Your task to perform on an android device: Go to ESPN.com Image 0: 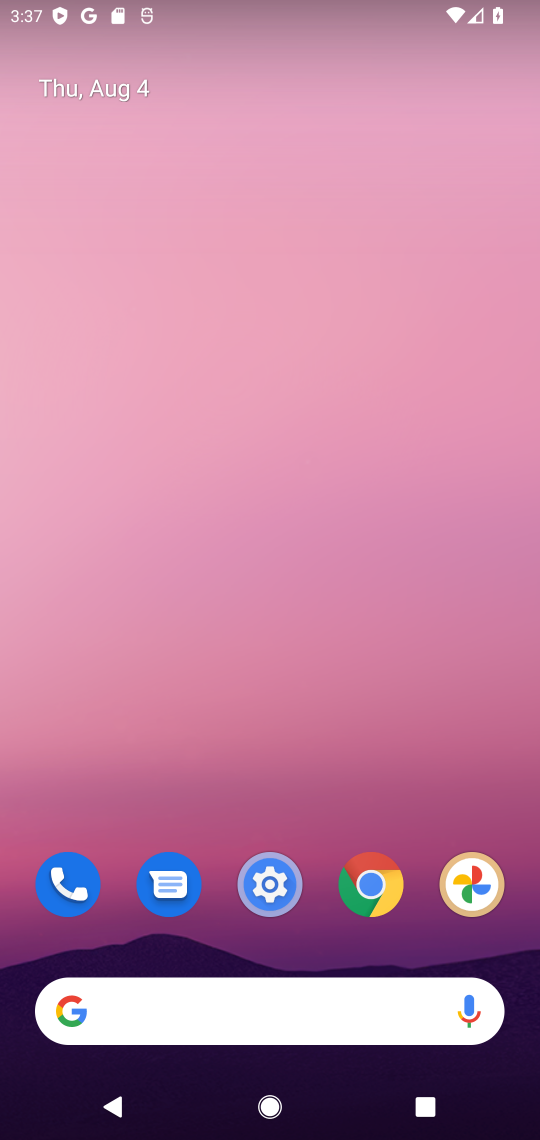
Step 0: drag from (246, 939) to (308, 423)
Your task to perform on an android device: Go to ESPN.com Image 1: 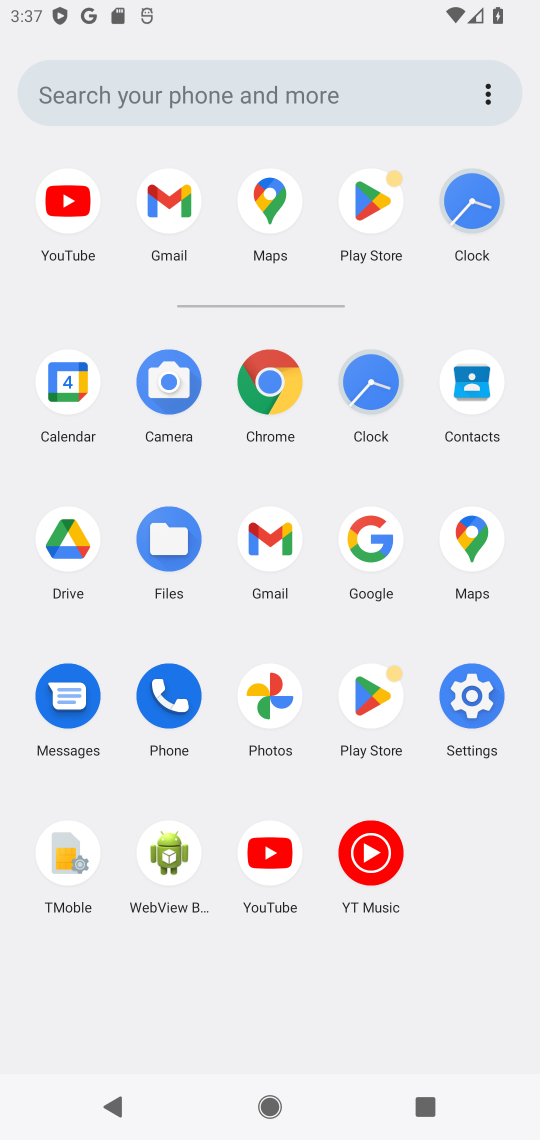
Step 1: click (174, 95)
Your task to perform on an android device: Go to ESPN.com Image 2: 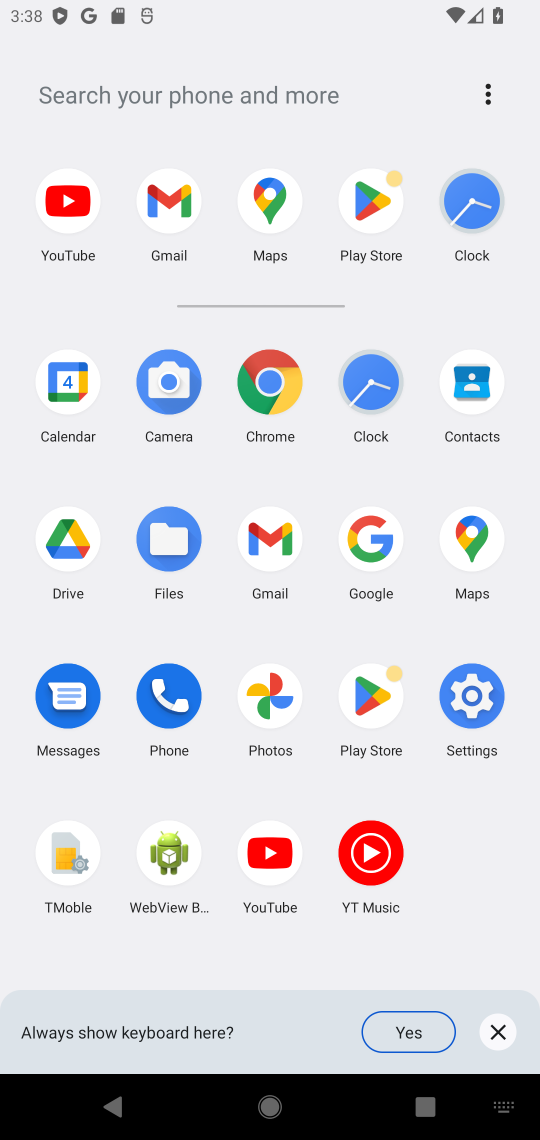
Step 2: type "ESPN.com"
Your task to perform on an android device: Go to ESPN.com Image 3: 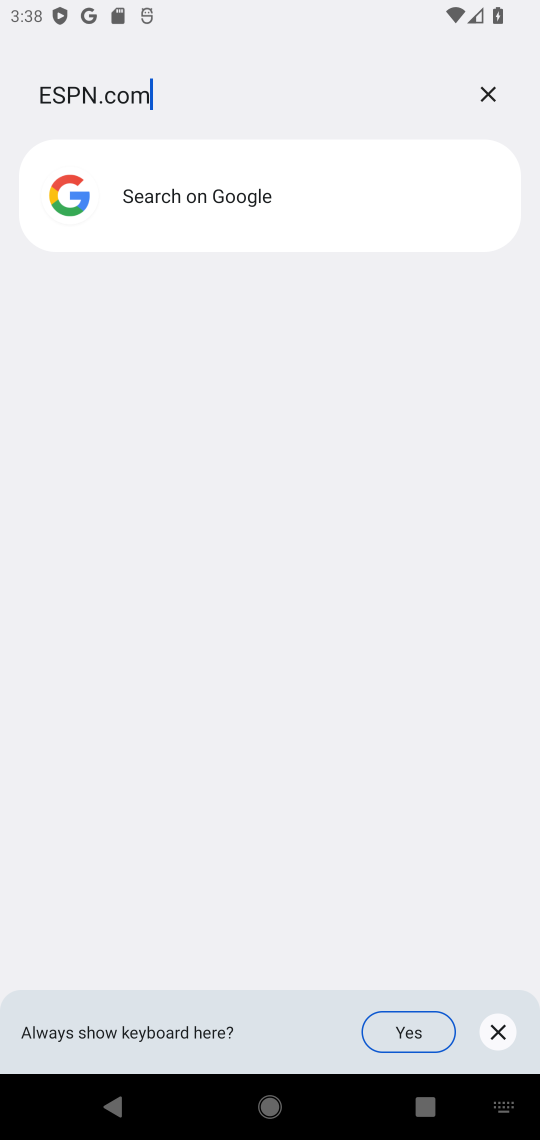
Step 3: type ""
Your task to perform on an android device: Go to ESPN.com Image 4: 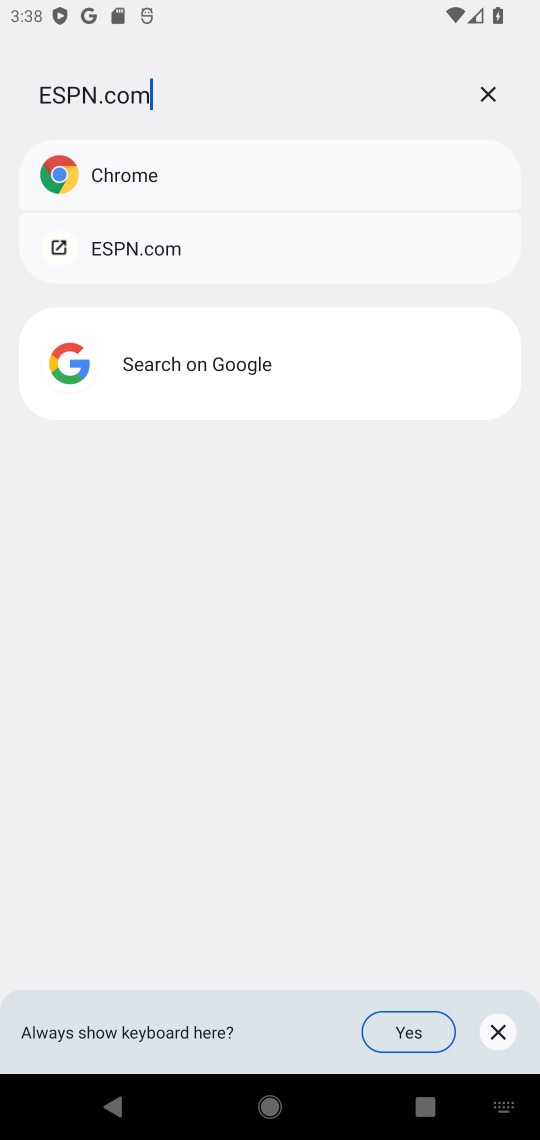
Step 4: click (146, 181)
Your task to perform on an android device: Go to ESPN.com Image 5: 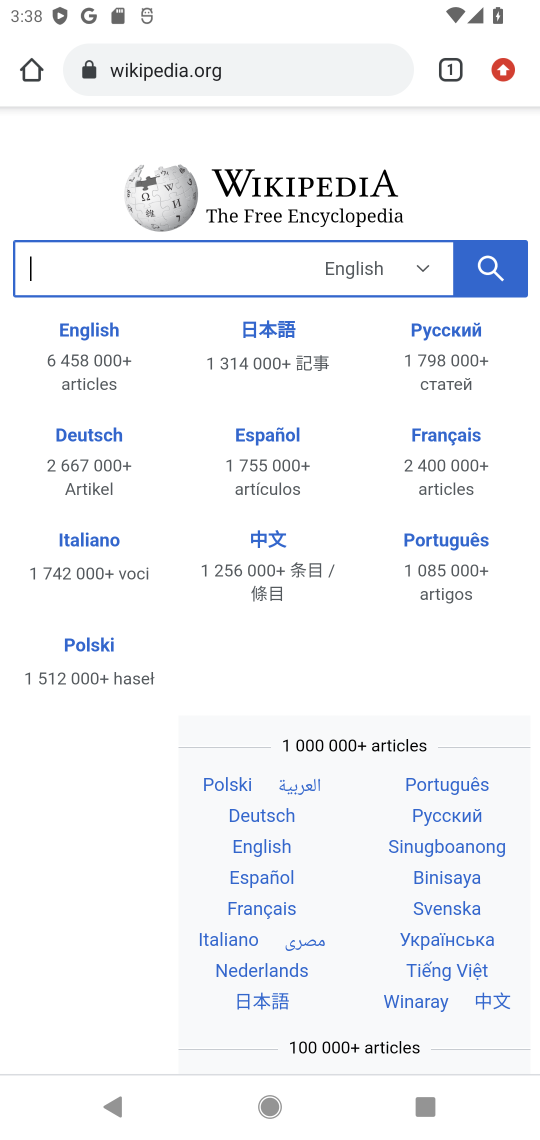
Step 5: drag from (315, 174) to (333, 1014)
Your task to perform on an android device: Go to ESPN.com Image 6: 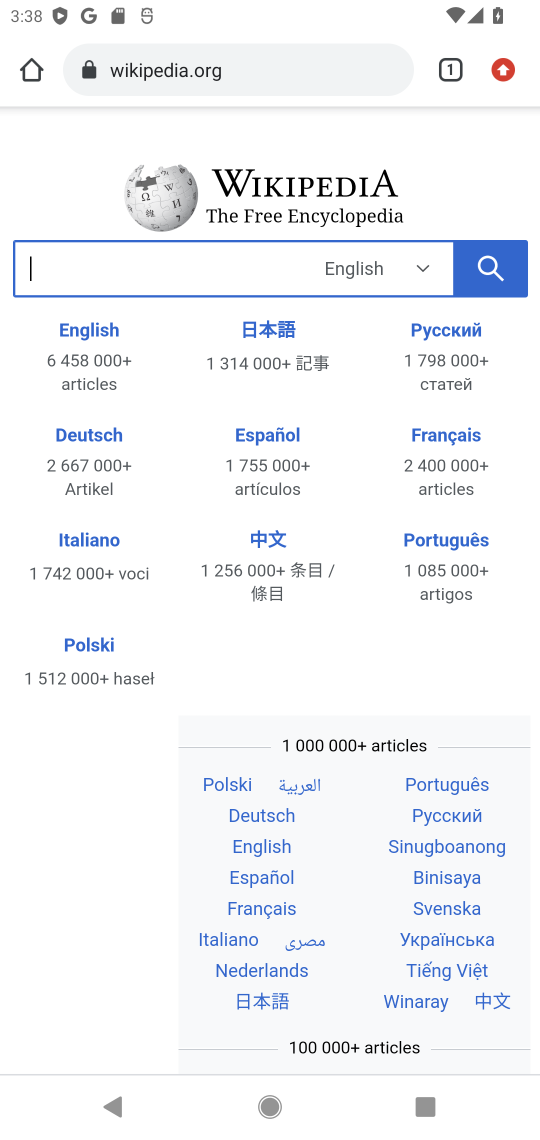
Step 6: click (155, 71)
Your task to perform on an android device: Go to ESPN.com Image 7: 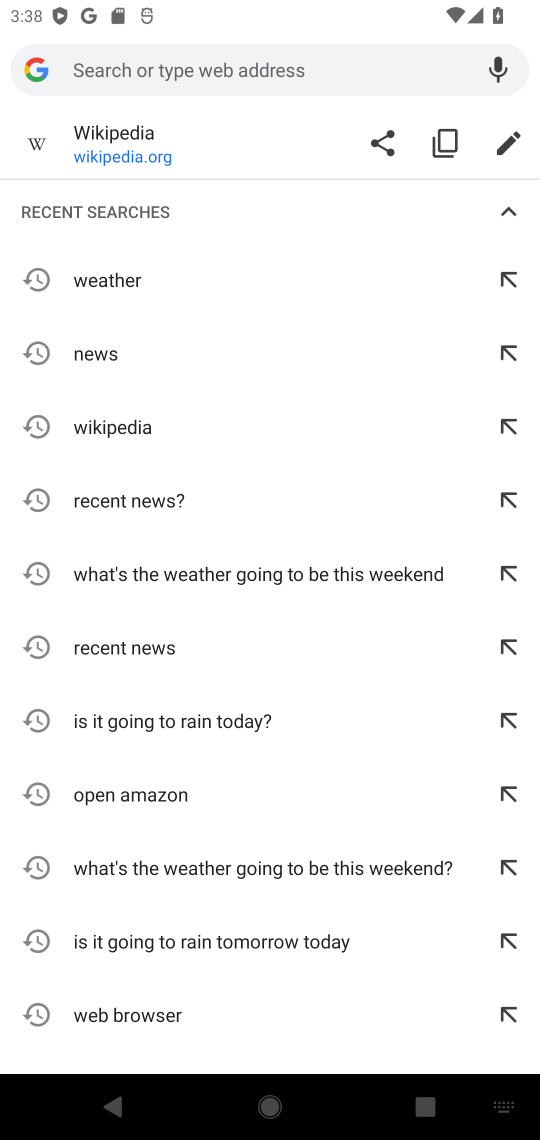
Step 7: type "ESPN.com"
Your task to perform on an android device: Go to ESPN.com Image 8: 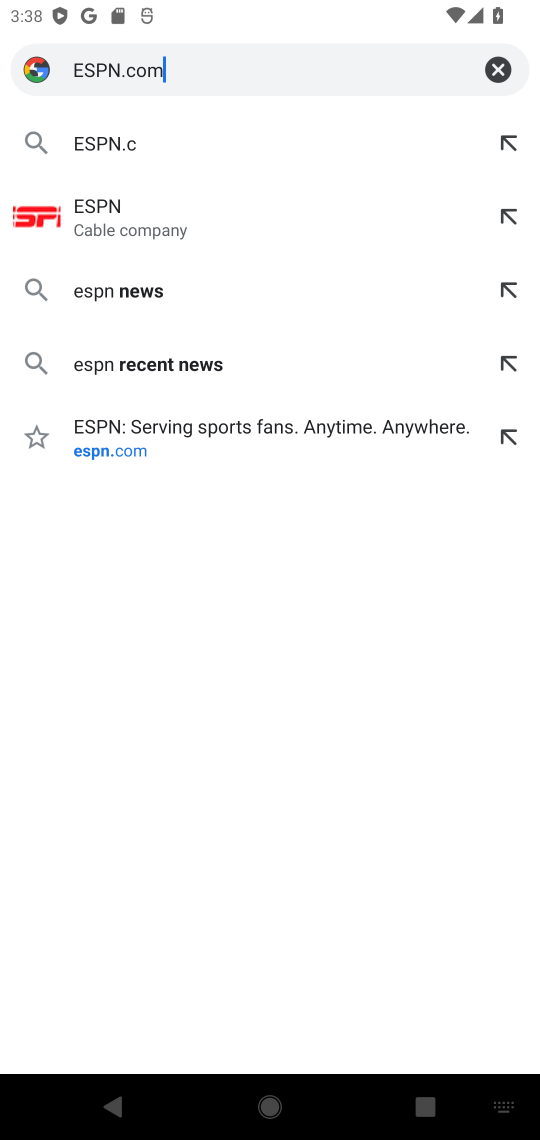
Step 8: type ""
Your task to perform on an android device: Go to ESPN.com Image 9: 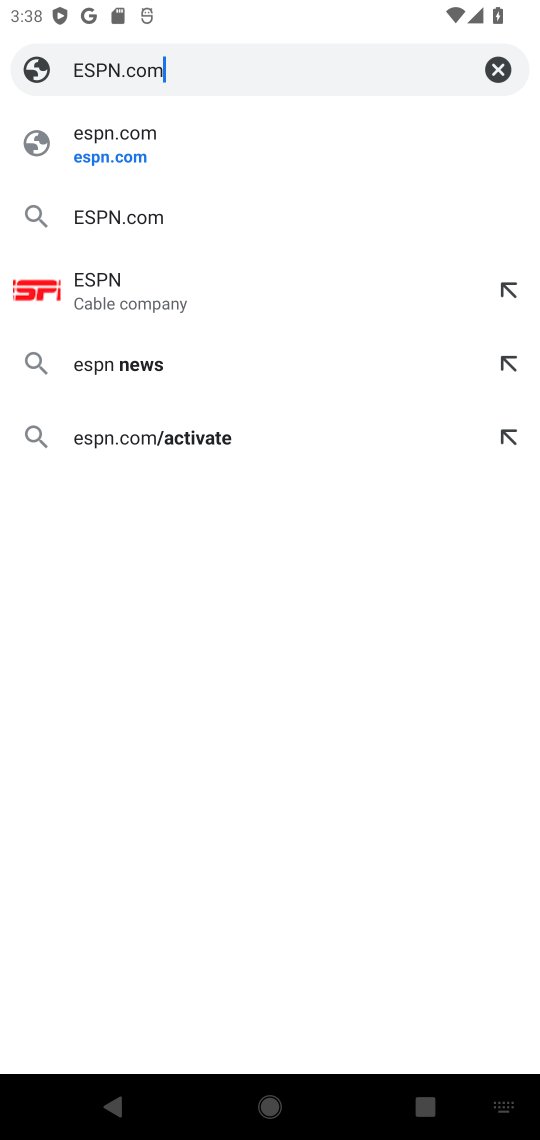
Step 9: click (118, 140)
Your task to perform on an android device: Go to ESPN.com Image 10: 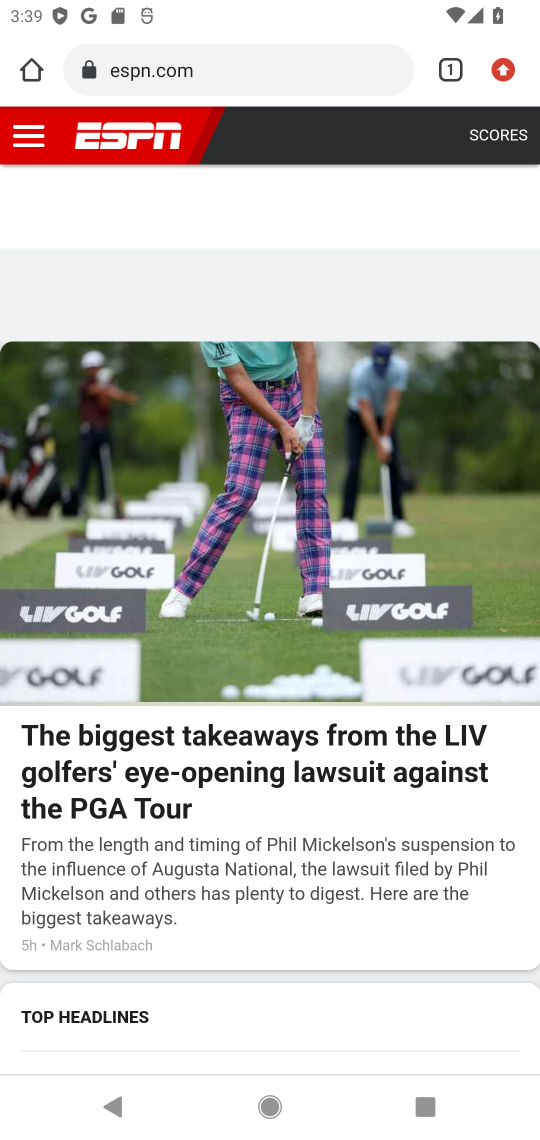
Step 10: task complete